Your task to perform on an android device: Turn on the flashlight Image 0: 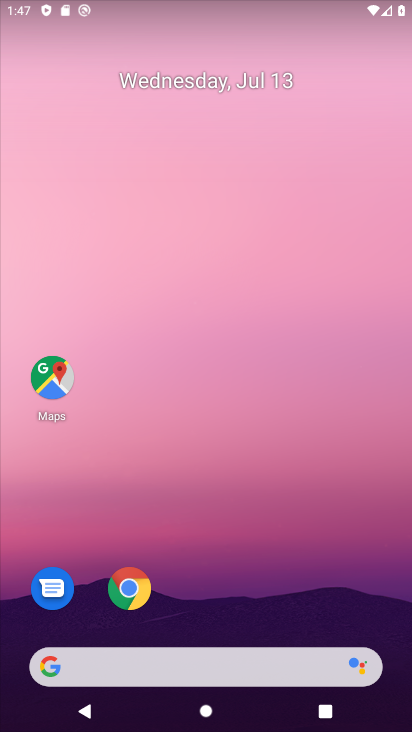
Step 0: drag from (260, 32) to (249, 440)
Your task to perform on an android device: Turn on the flashlight Image 1: 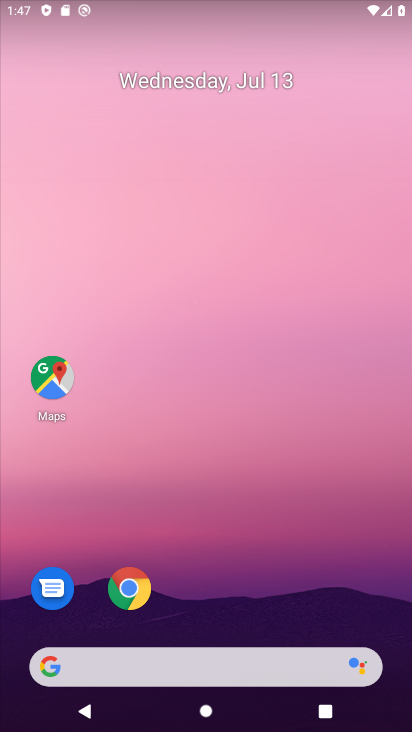
Step 1: task complete